Your task to perform on an android device: Open ESPN.com Image 0: 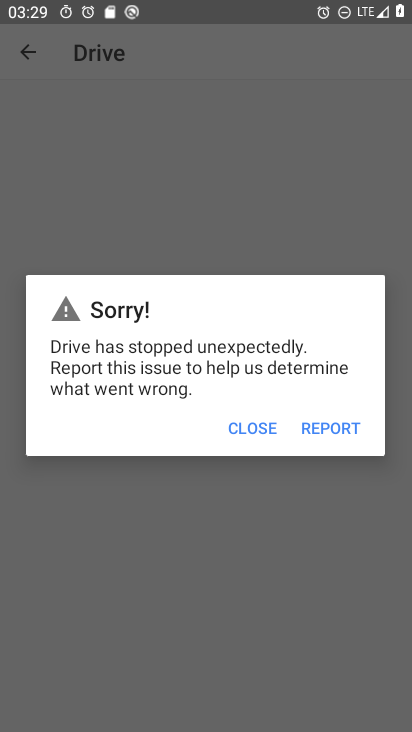
Step 0: press home button
Your task to perform on an android device: Open ESPN.com Image 1: 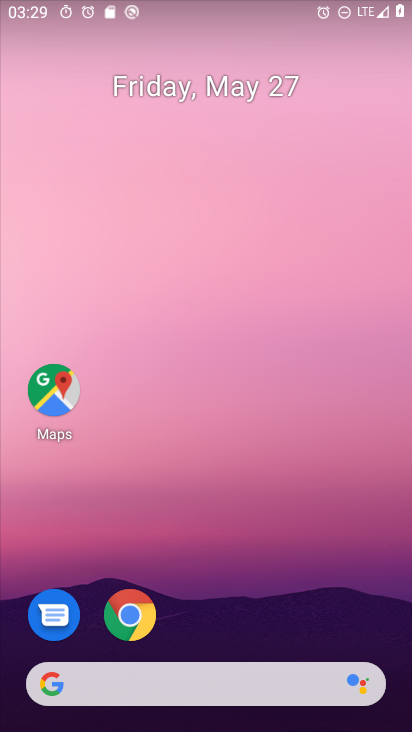
Step 1: drag from (371, 640) to (372, 210)
Your task to perform on an android device: Open ESPN.com Image 2: 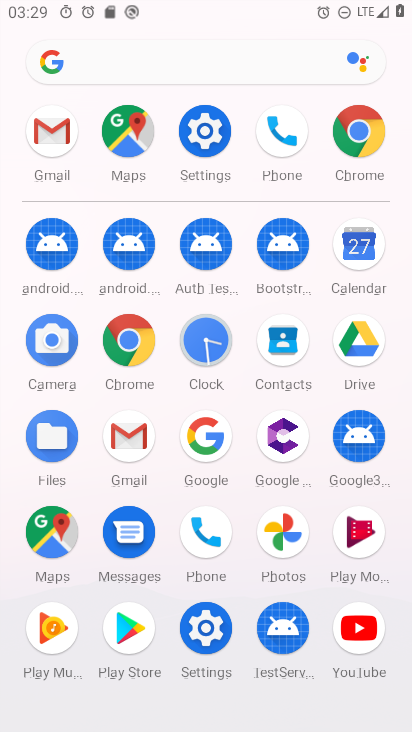
Step 2: click (140, 359)
Your task to perform on an android device: Open ESPN.com Image 3: 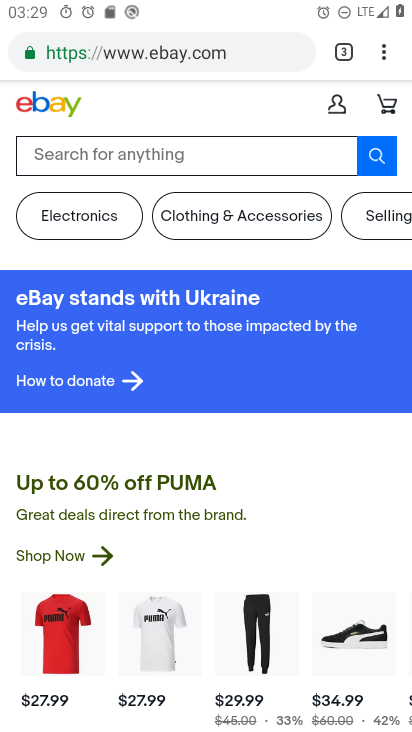
Step 3: click (247, 56)
Your task to perform on an android device: Open ESPN.com Image 4: 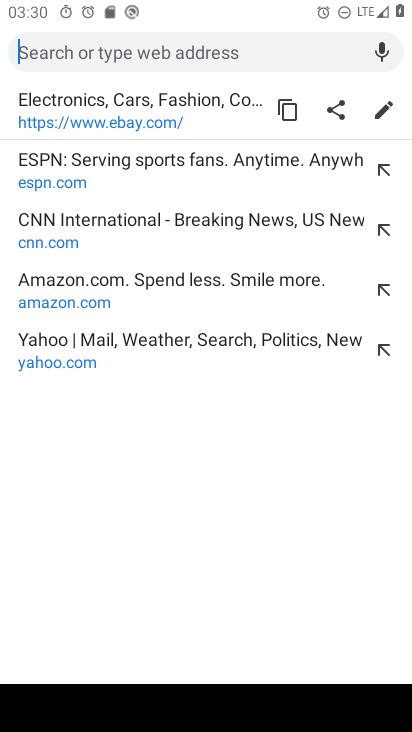
Step 4: type "wspn.com"
Your task to perform on an android device: Open ESPN.com Image 5: 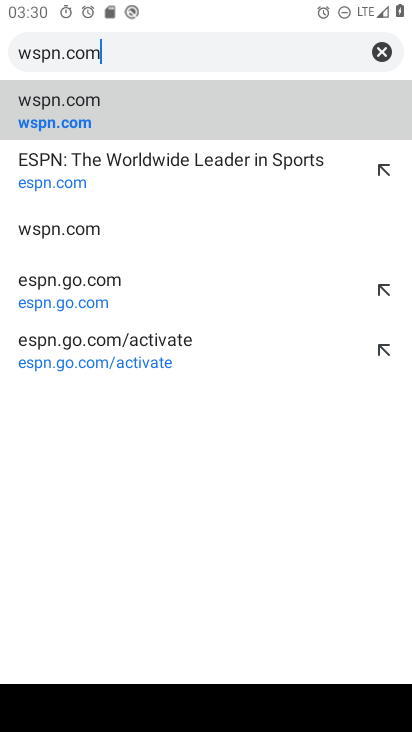
Step 5: click (179, 127)
Your task to perform on an android device: Open ESPN.com Image 6: 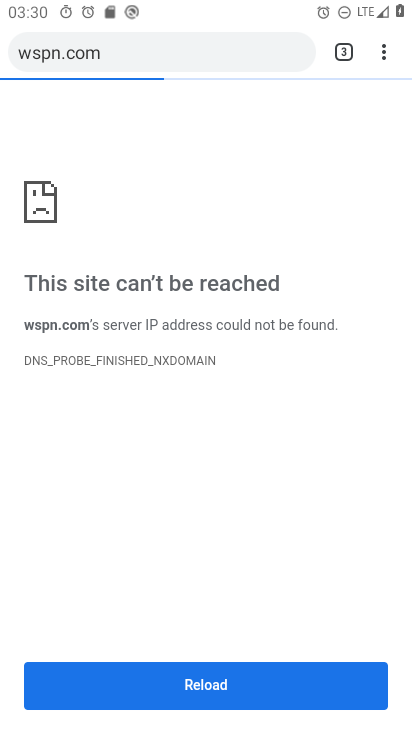
Step 6: task complete